Your task to perform on an android device: Open location settings Image 0: 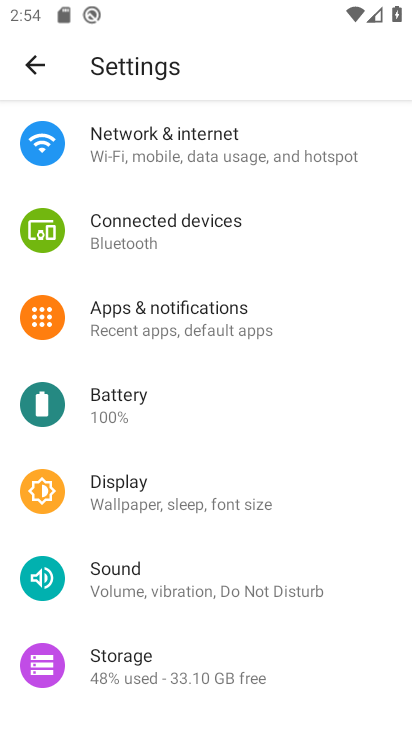
Step 0: press home button
Your task to perform on an android device: Open location settings Image 1: 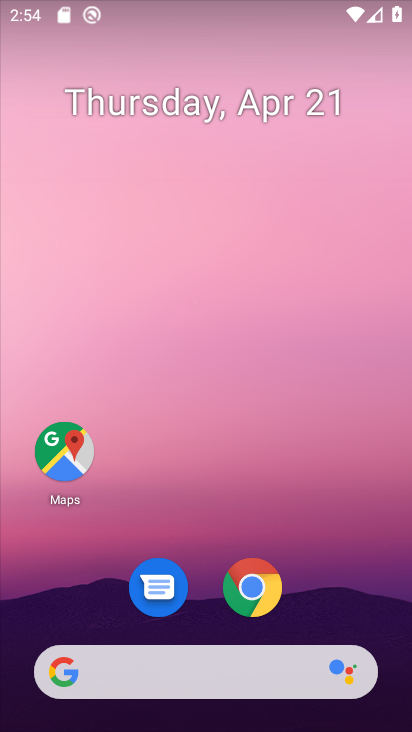
Step 1: drag from (276, 398) to (141, 62)
Your task to perform on an android device: Open location settings Image 2: 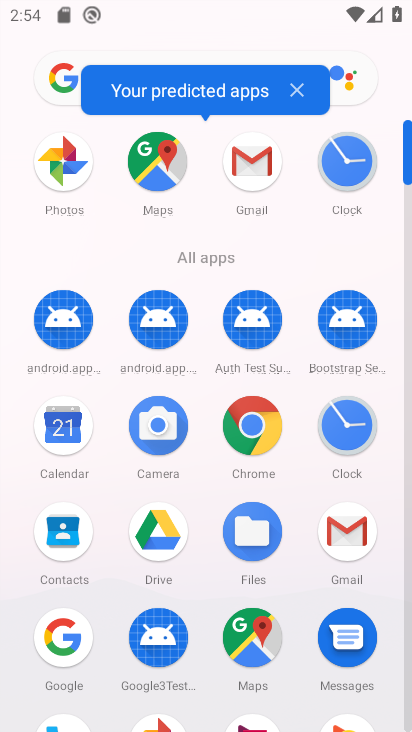
Step 2: drag from (212, 456) to (200, 107)
Your task to perform on an android device: Open location settings Image 3: 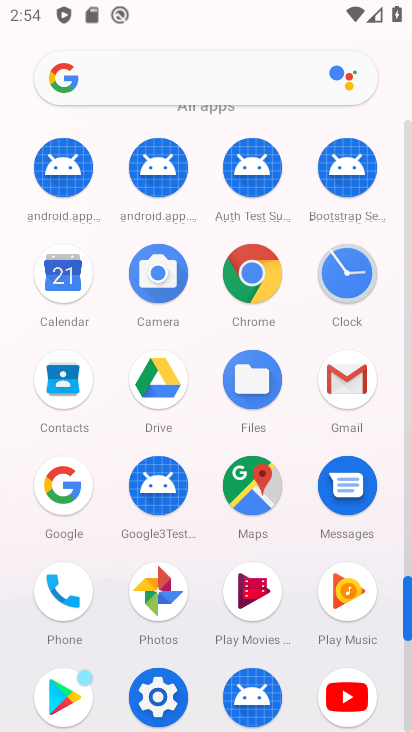
Step 3: click (159, 688)
Your task to perform on an android device: Open location settings Image 4: 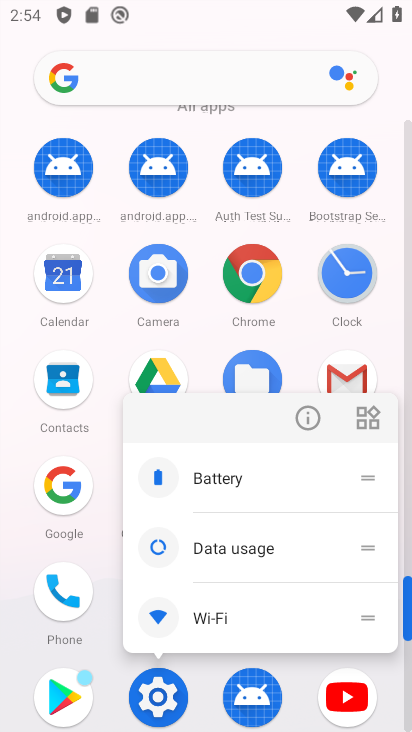
Step 4: click (158, 701)
Your task to perform on an android device: Open location settings Image 5: 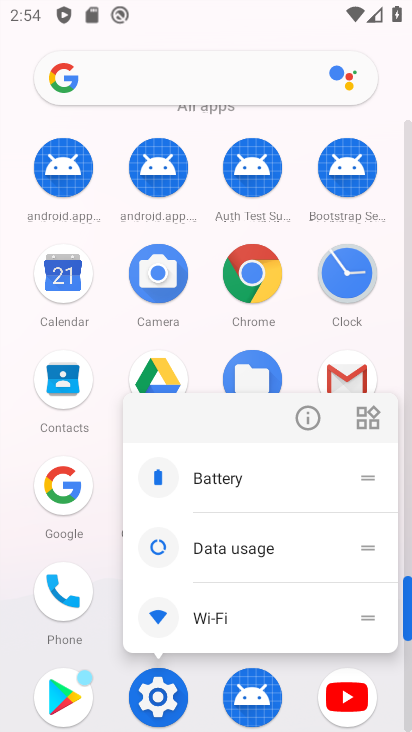
Step 5: click (165, 692)
Your task to perform on an android device: Open location settings Image 6: 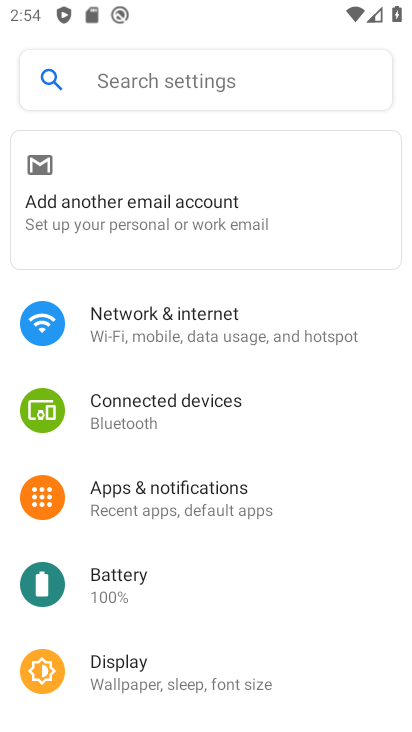
Step 6: drag from (131, 682) to (140, 170)
Your task to perform on an android device: Open location settings Image 7: 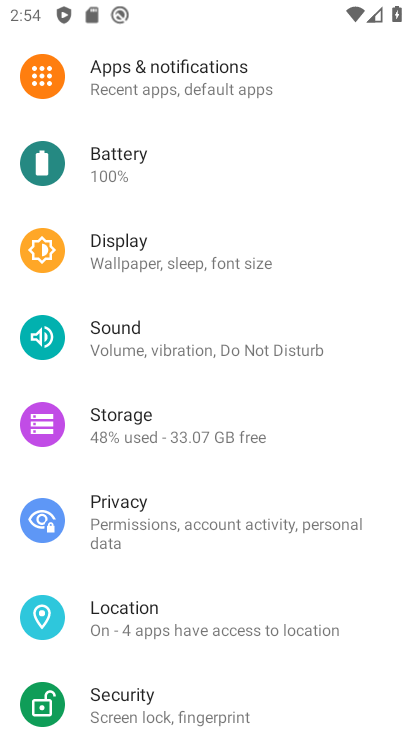
Step 7: click (165, 621)
Your task to perform on an android device: Open location settings Image 8: 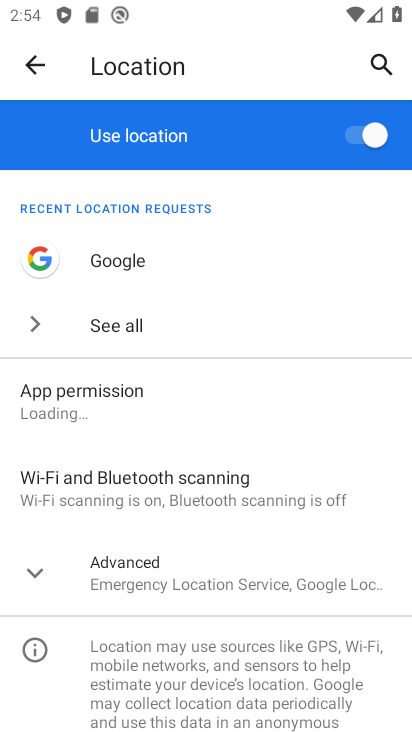
Step 8: task complete